Your task to perform on an android device: Open CNN.com Image 0: 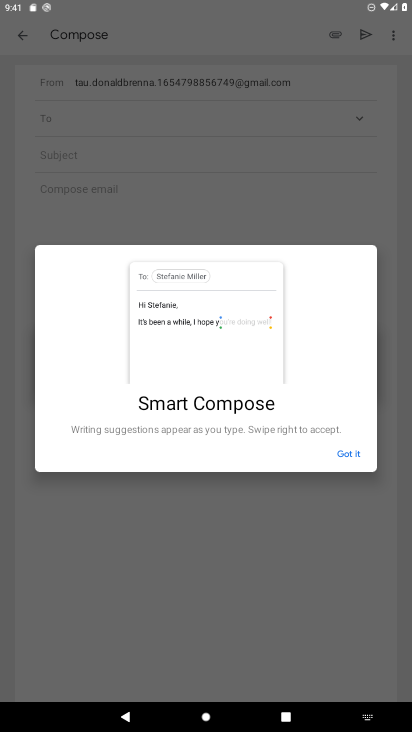
Step 0: press home button
Your task to perform on an android device: Open CNN.com Image 1: 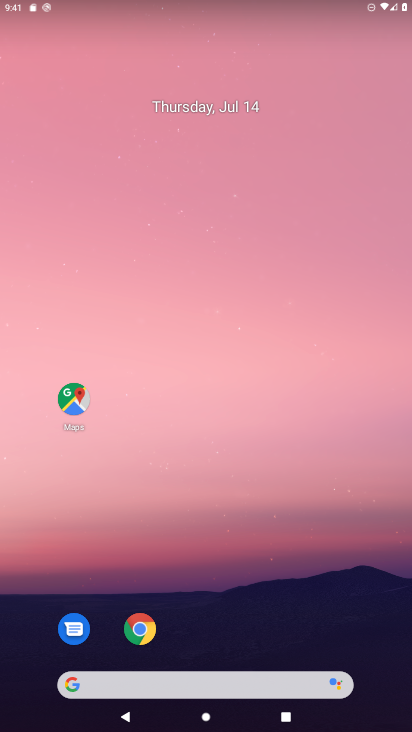
Step 1: drag from (255, 621) to (252, 51)
Your task to perform on an android device: Open CNN.com Image 2: 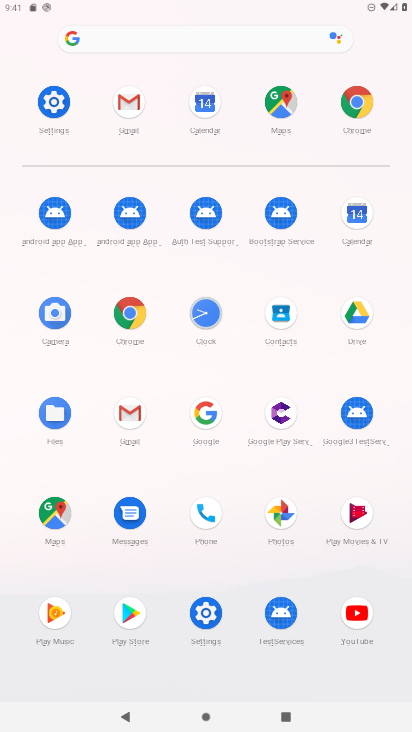
Step 2: click (135, 308)
Your task to perform on an android device: Open CNN.com Image 3: 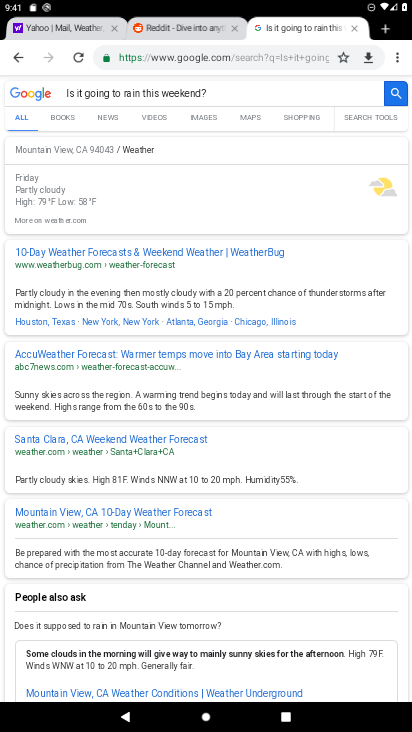
Step 3: click (228, 56)
Your task to perform on an android device: Open CNN.com Image 4: 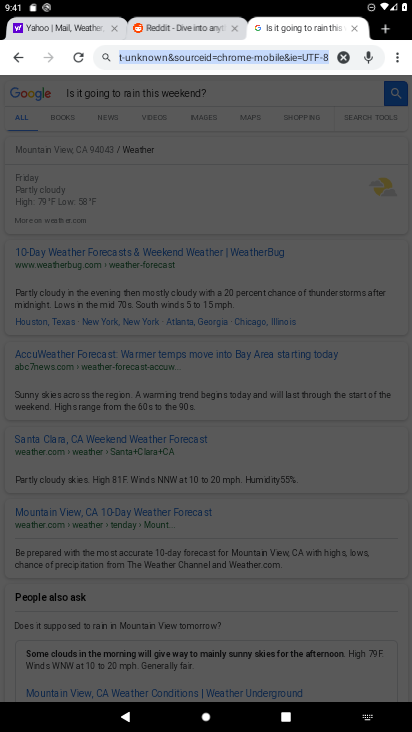
Step 4: click (345, 58)
Your task to perform on an android device: Open CNN.com Image 5: 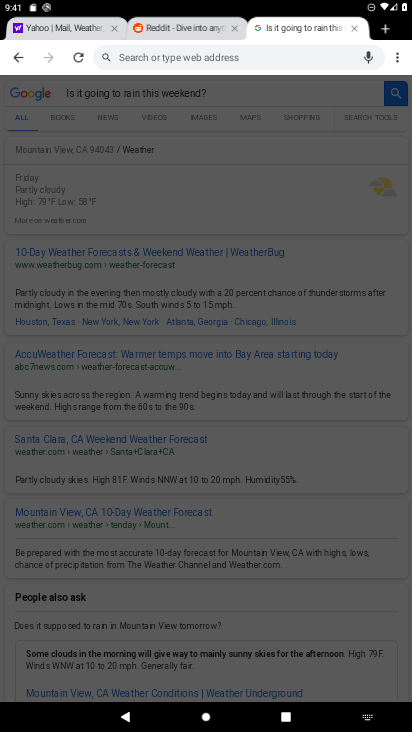
Step 5: click (127, 47)
Your task to perform on an android device: Open CNN.com Image 6: 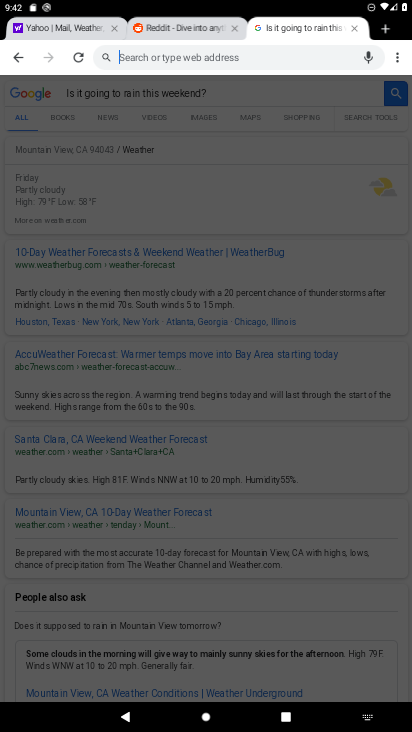
Step 6: type "CNN.com"
Your task to perform on an android device: Open CNN.com Image 7: 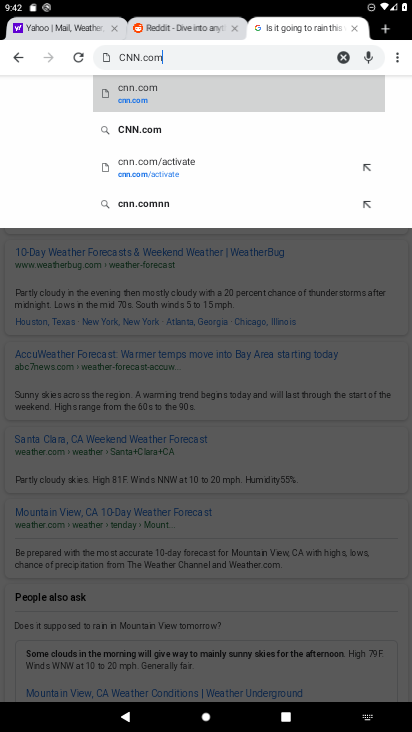
Step 7: click (135, 93)
Your task to perform on an android device: Open CNN.com Image 8: 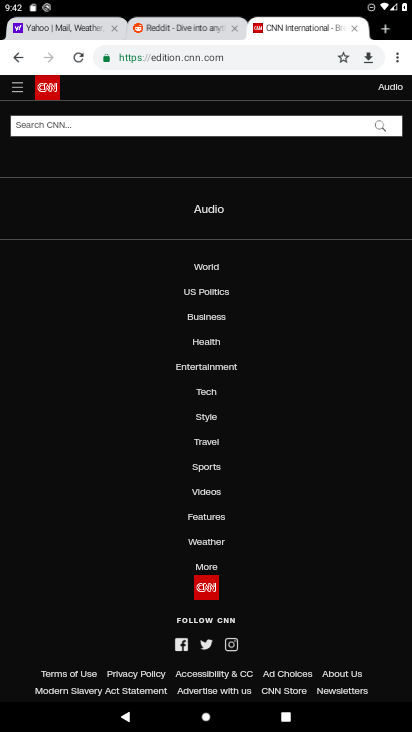
Step 8: task complete